Your task to perform on an android device: change the clock display to show seconds Image 0: 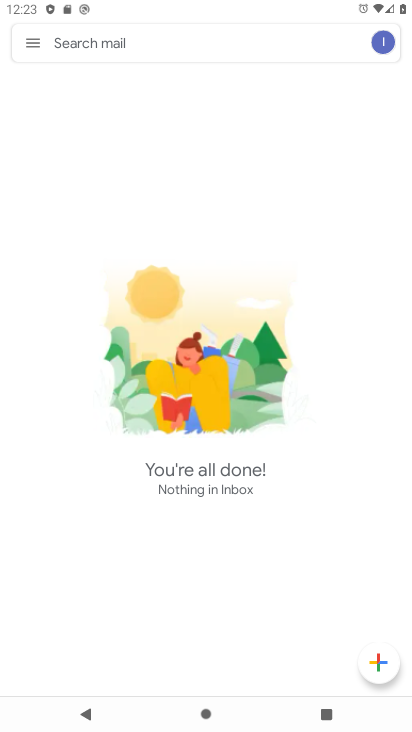
Step 0: press back button
Your task to perform on an android device: change the clock display to show seconds Image 1: 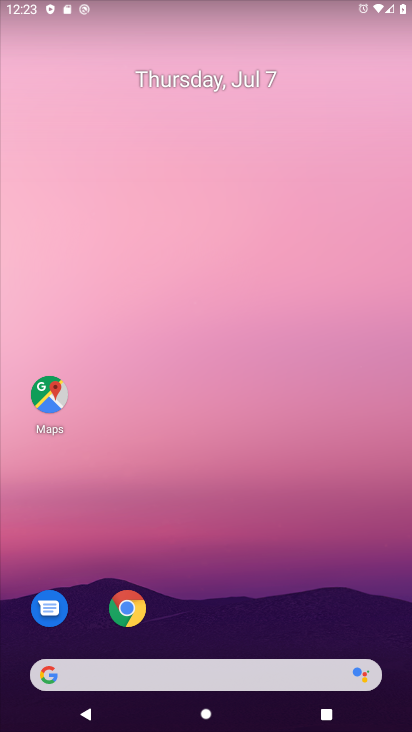
Step 1: drag from (242, 629) to (306, 4)
Your task to perform on an android device: change the clock display to show seconds Image 2: 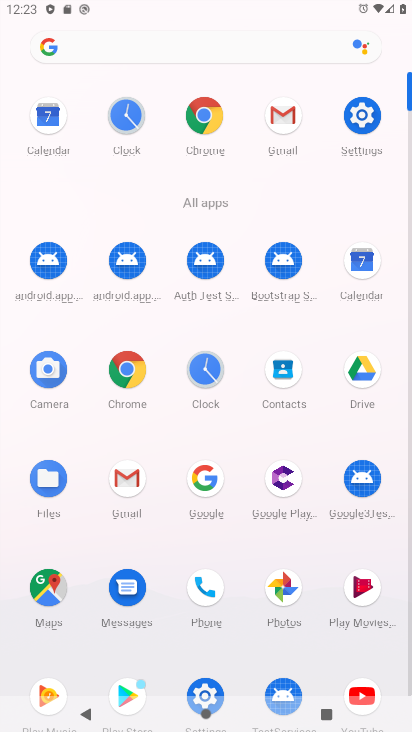
Step 2: click (202, 358)
Your task to perform on an android device: change the clock display to show seconds Image 3: 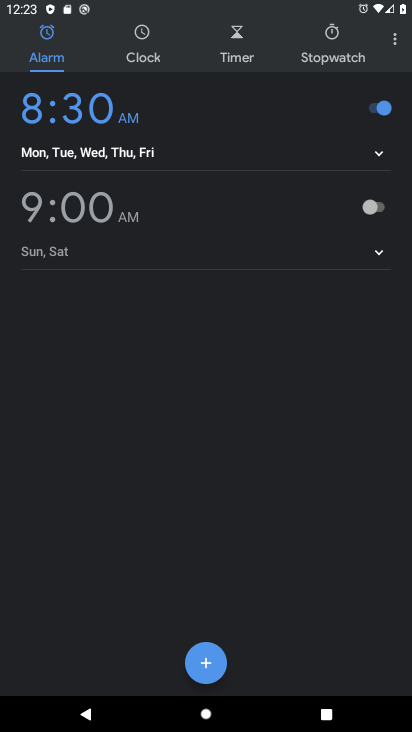
Step 3: click (389, 37)
Your task to perform on an android device: change the clock display to show seconds Image 4: 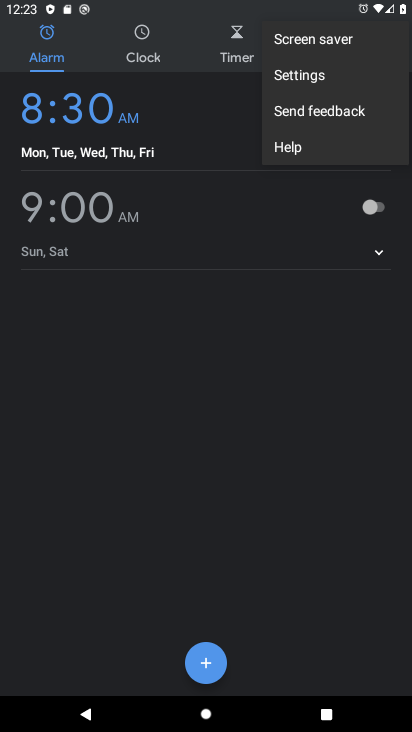
Step 4: click (317, 73)
Your task to perform on an android device: change the clock display to show seconds Image 5: 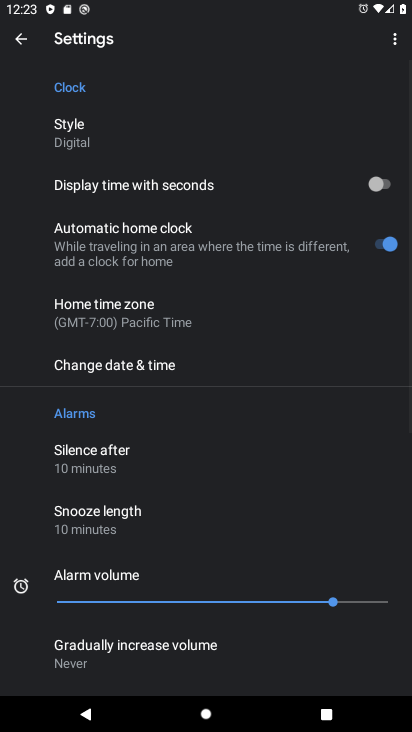
Step 5: click (83, 132)
Your task to perform on an android device: change the clock display to show seconds Image 6: 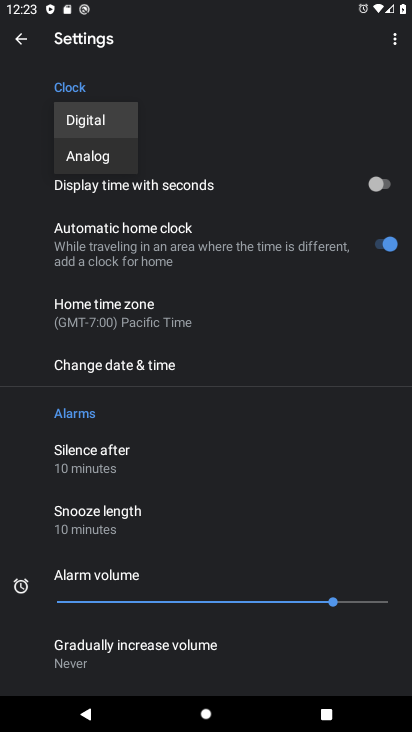
Step 6: click (84, 150)
Your task to perform on an android device: change the clock display to show seconds Image 7: 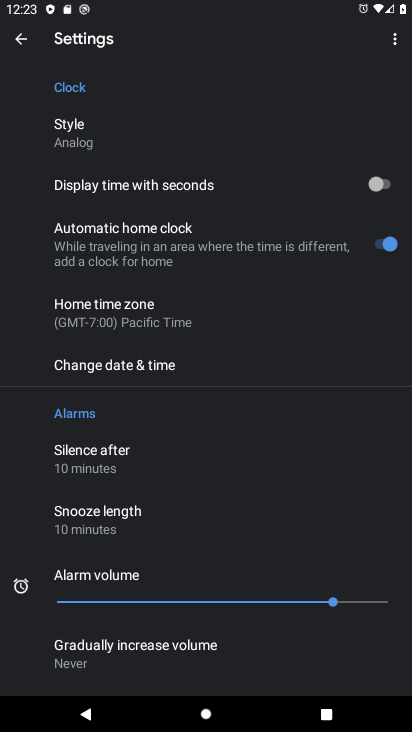
Step 7: task complete